Your task to perform on an android device: When is my next appointment? Image 0: 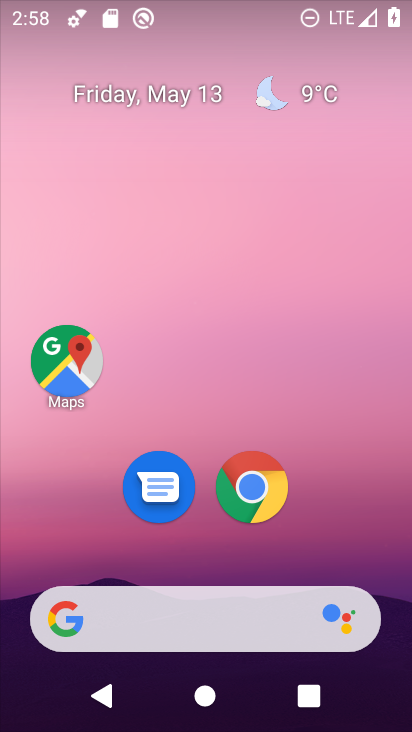
Step 0: drag from (205, 636) to (323, 56)
Your task to perform on an android device: When is my next appointment? Image 1: 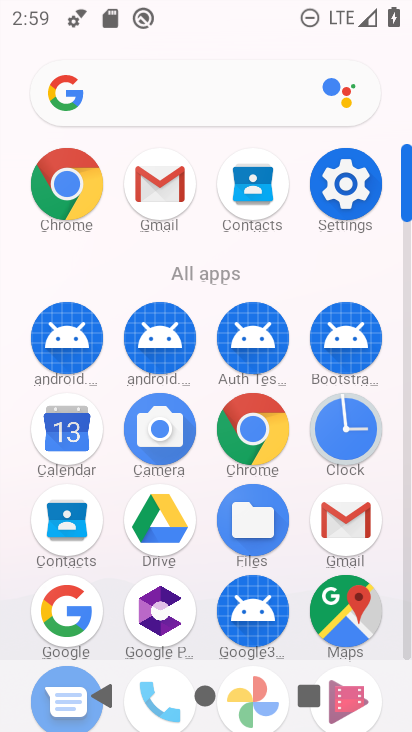
Step 1: click (66, 424)
Your task to perform on an android device: When is my next appointment? Image 2: 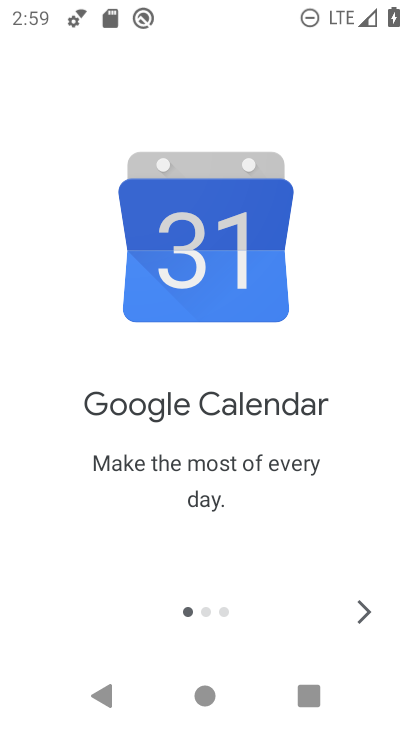
Step 2: click (374, 611)
Your task to perform on an android device: When is my next appointment? Image 3: 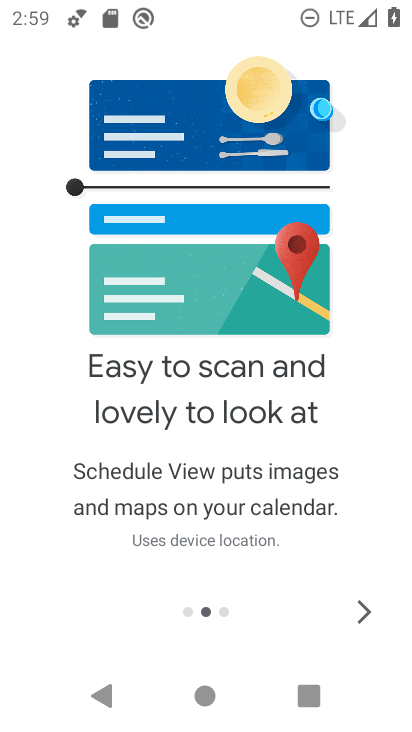
Step 3: click (374, 611)
Your task to perform on an android device: When is my next appointment? Image 4: 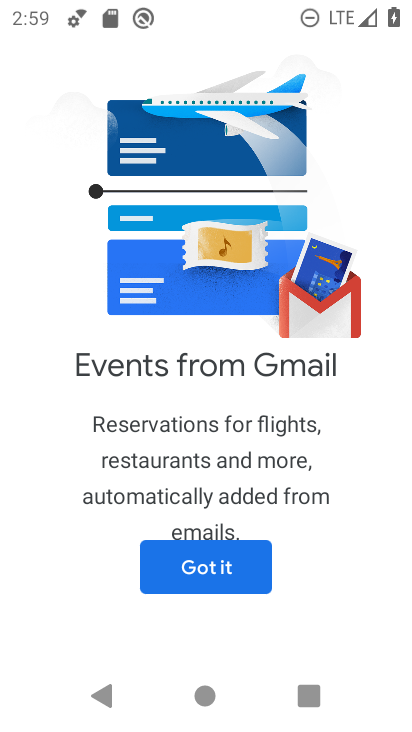
Step 4: click (174, 573)
Your task to perform on an android device: When is my next appointment? Image 5: 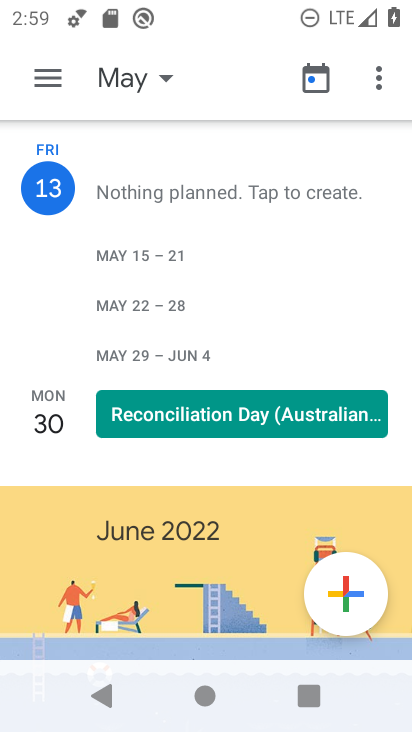
Step 5: click (47, 76)
Your task to perform on an android device: When is my next appointment? Image 6: 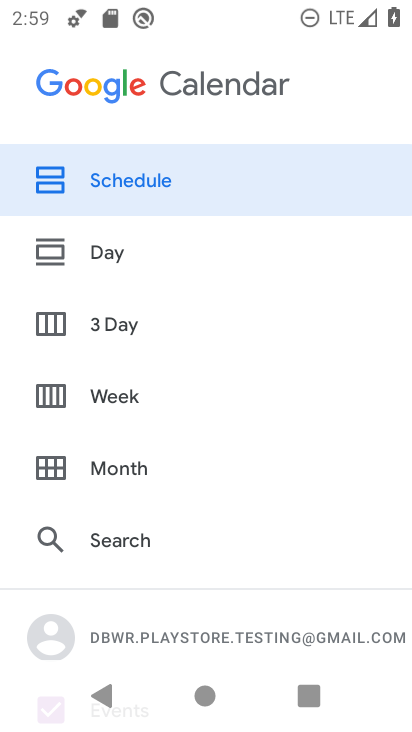
Step 6: click (135, 177)
Your task to perform on an android device: When is my next appointment? Image 7: 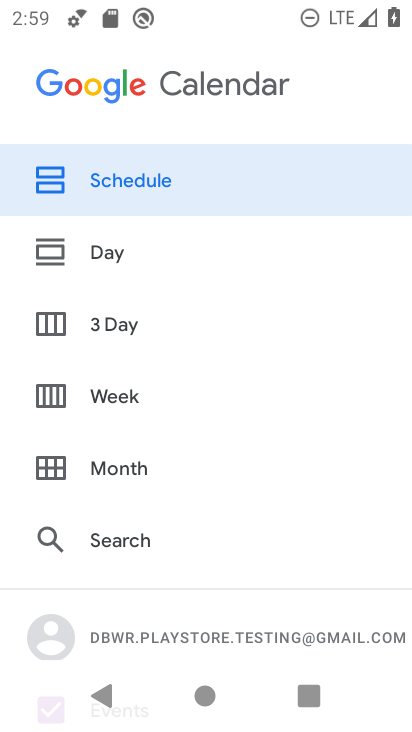
Step 7: task complete